Your task to perform on an android device: Open Google Maps and go to "Timeline" Image 0: 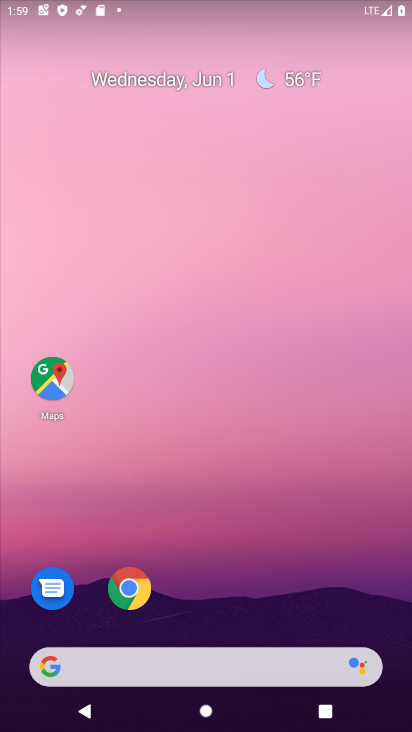
Step 0: click (54, 373)
Your task to perform on an android device: Open Google Maps and go to "Timeline" Image 1: 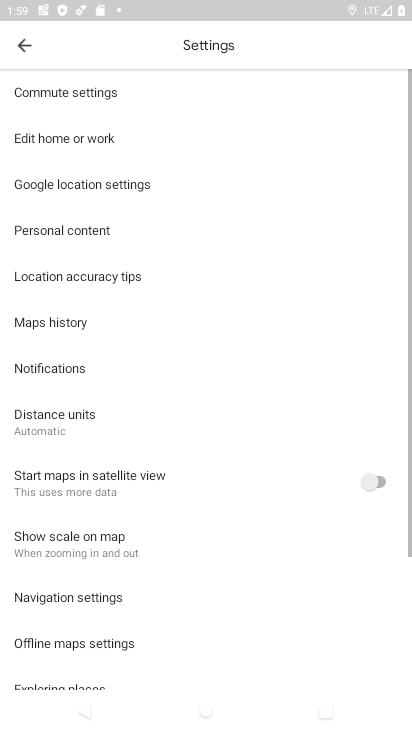
Step 1: click (28, 40)
Your task to perform on an android device: Open Google Maps and go to "Timeline" Image 2: 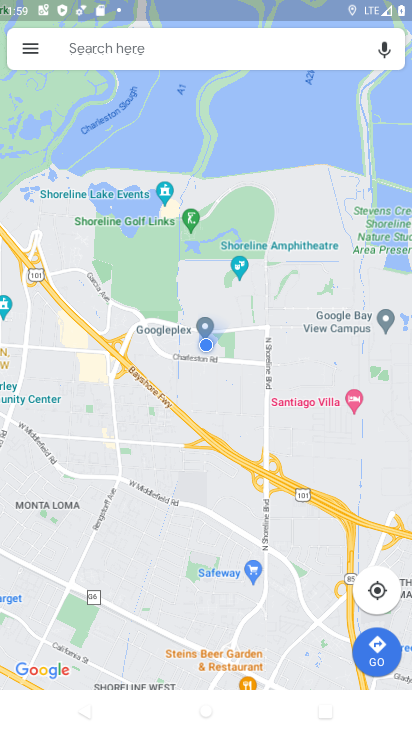
Step 2: click (38, 51)
Your task to perform on an android device: Open Google Maps and go to "Timeline" Image 3: 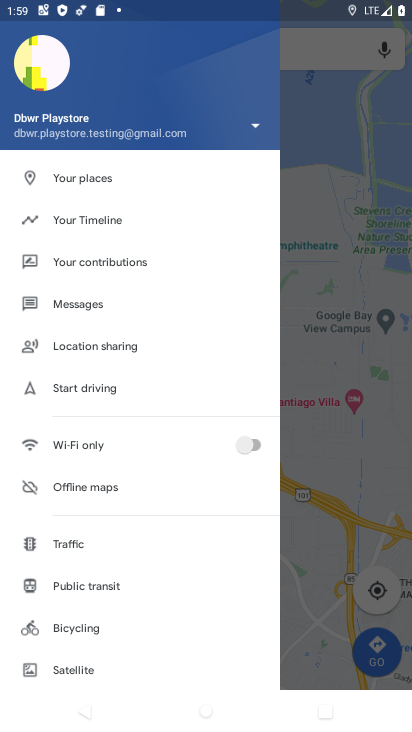
Step 3: click (127, 220)
Your task to perform on an android device: Open Google Maps and go to "Timeline" Image 4: 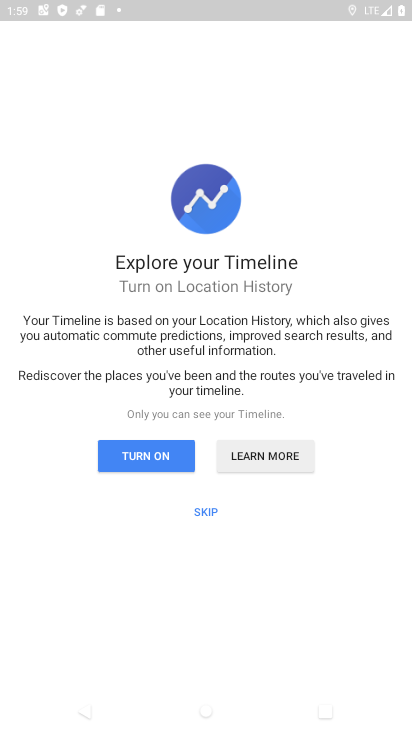
Step 4: click (152, 456)
Your task to perform on an android device: Open Google Maps and go to "Timeline" Image 5: 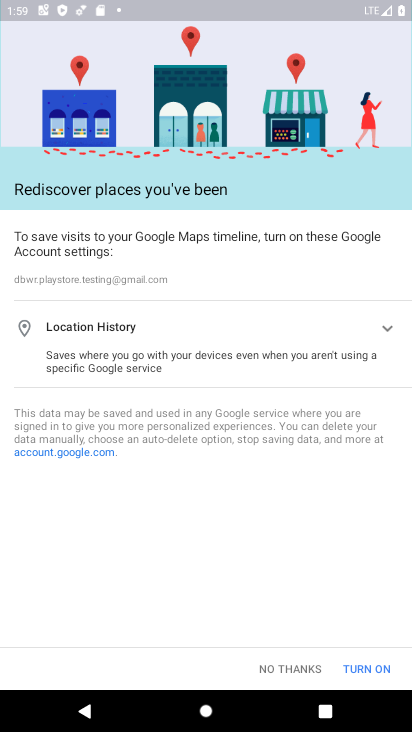
Step 5: click (367, 659)
Your task to perform on an android device: Open Google Maps and go to "Timeline" Image 6: 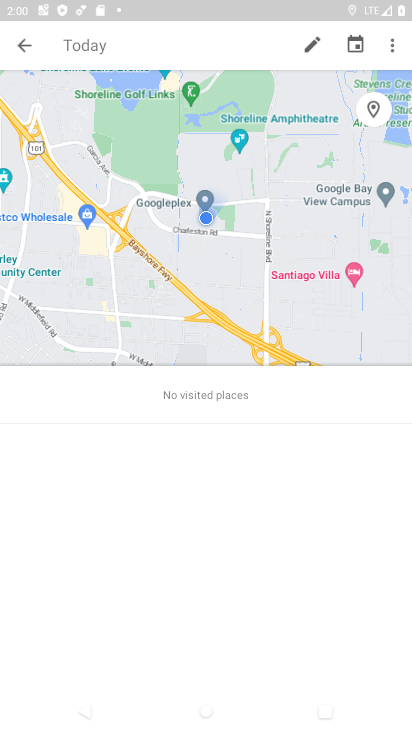
Step 6: task complete